Your task to perform on an android device: What's the weather? Image 0: 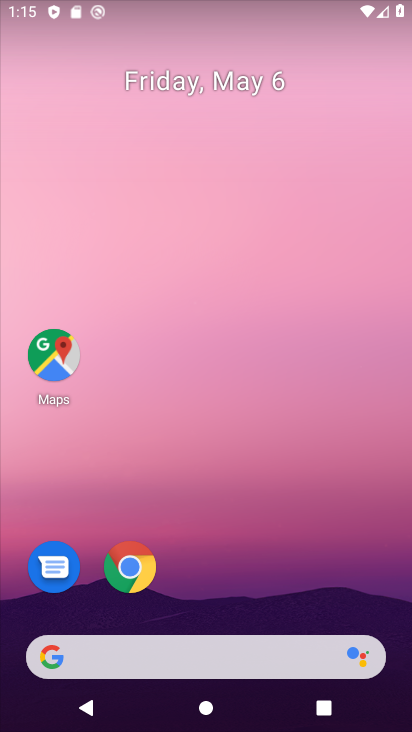
Step 0: drag from (95, 442) to (393, 330)
Your task to perform on an android device: What's the weather? Image 1: 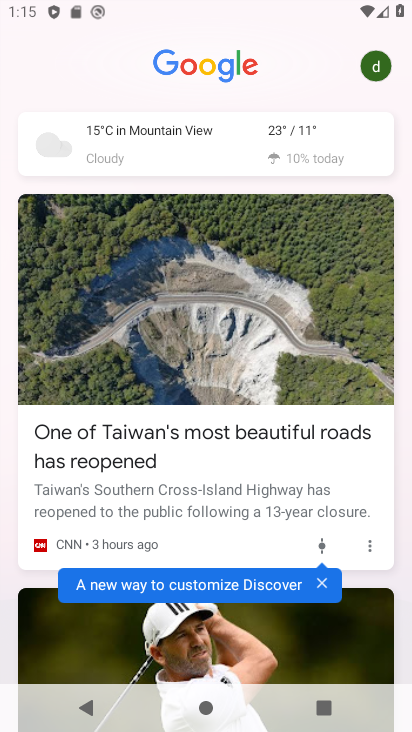
Step 1: click (260, 138)
Your task to perform on an android device: What's the weather? Image 2: 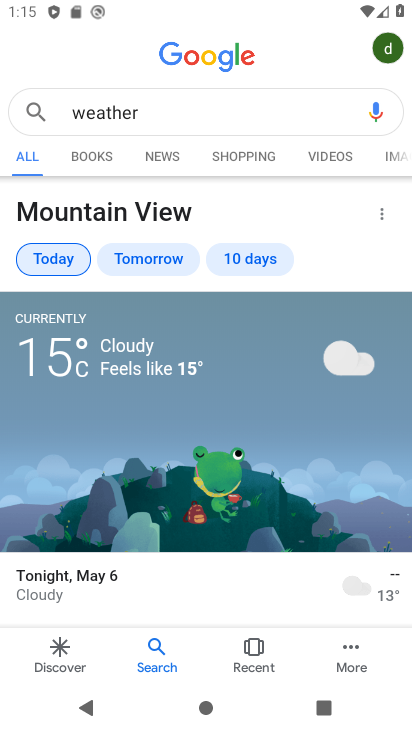
Step 2: task complete